Your task to perform on an android device: allow cookies in the chrome app Image 0: 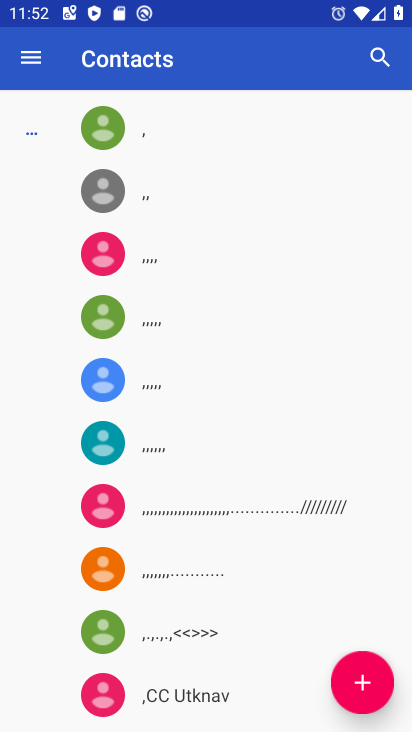
Step 0: press home button
Your task to perform on an android device: allow cookies in the chrome app Image 1: 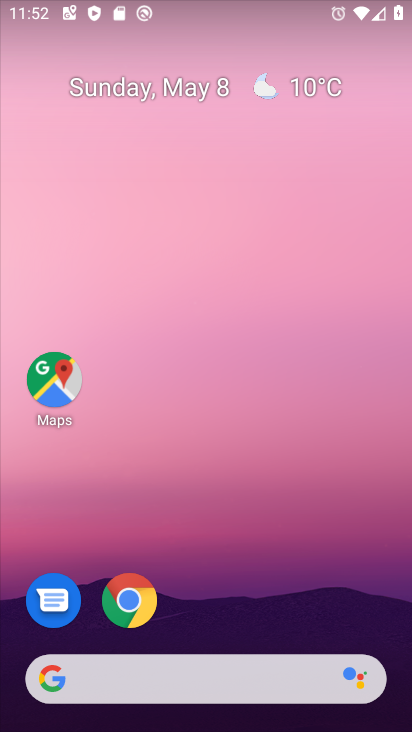
Step 1: click (134, 599)
Your task to perform on an android device: allow cookies in the chrome app Image 2: 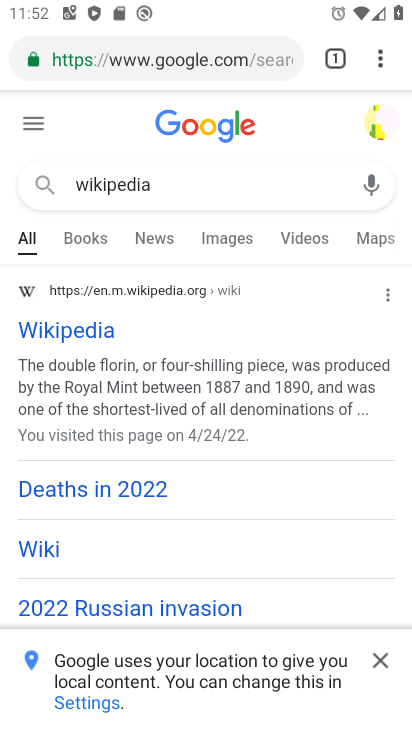
Step 2: click (378, 58)
Your task to perform on an android device: allow cookies in the chrome app Image 3: 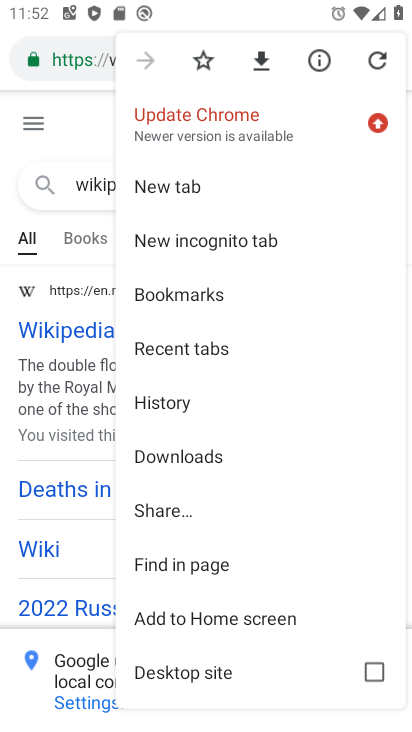
Step 3: drag from (211, 529) to (220, 244)
Your task to perform on an android device: allow cookies in the chrome app Image 4: 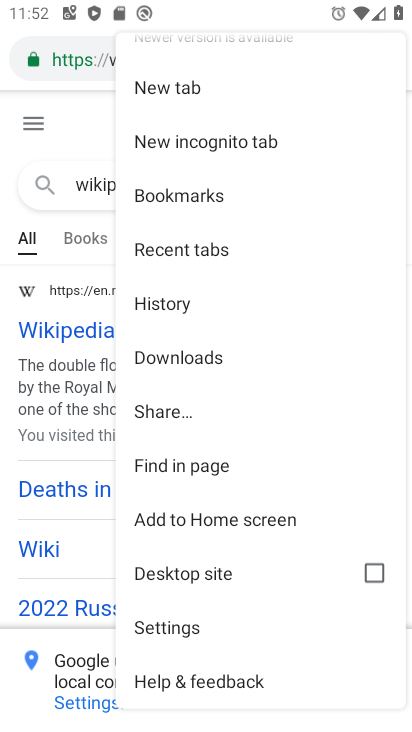
Step 4: click (167, 630)
Your task to perform on an android device: allow cookies in the chrome app Image 5: 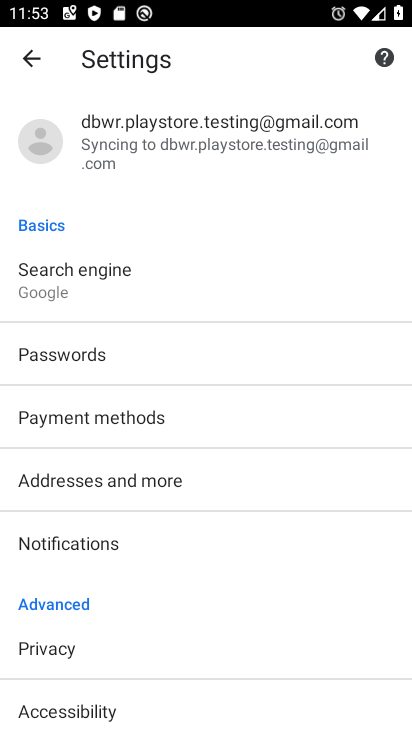
Step 5: drag from (135, 686) to (68, 291)
Your task to perform on an android device: allow cookies in the chrome app Image 6: 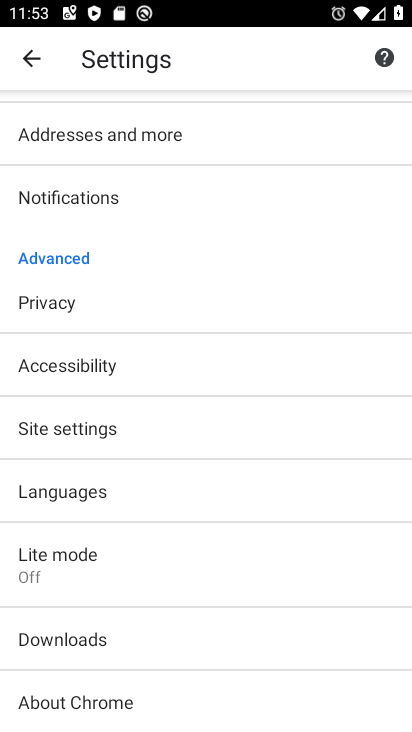
Step 6: click (124, 433)
Your task to perform on an android device: allow cookies in the chrome app Image 7: 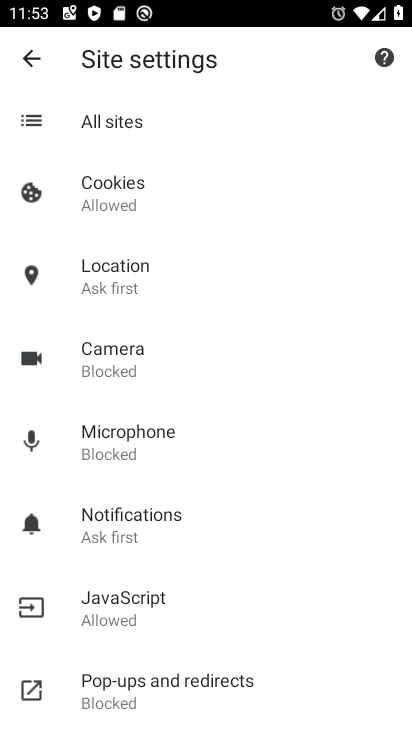
Step 7: click (101, 203)
Your task to perform on an android device: allow cookies in the chrome app Image 8: 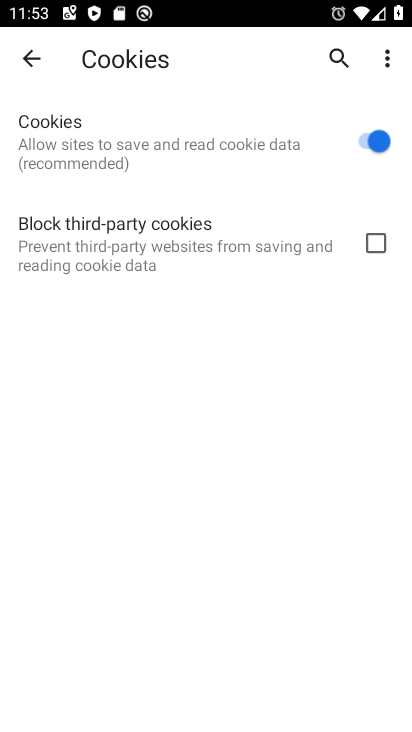
Step 8: task complete